Your task to perform on an android device: open chrome and create a bookmark for the current page Image 0: 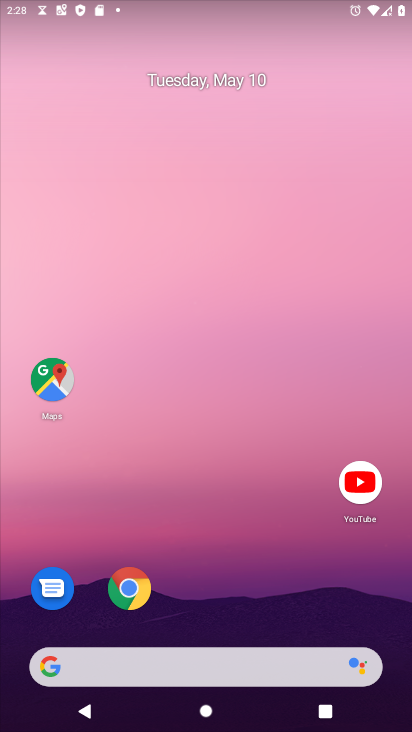
Step 0: drag from (256, 611) to (315, 226)
Your task to perform on an android device: open chrome and create a bookmark for the current page Image 1: 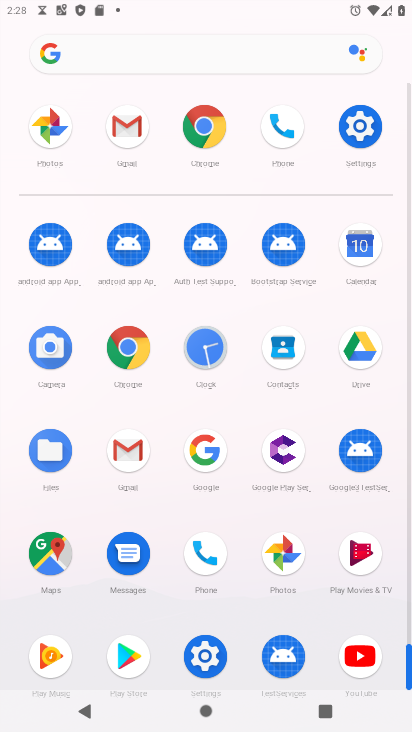
Step 1: click (133, 343)
Your task to perform on an android device: open chrome and create a bookmark for the current page Image 2: 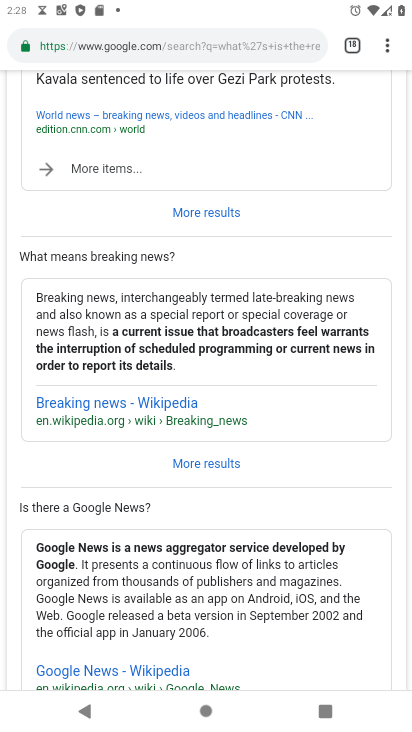
Step 2: click (373, 47)
Your task to perform on an android device: open chrome and create a bookmark for the current page Image 3: 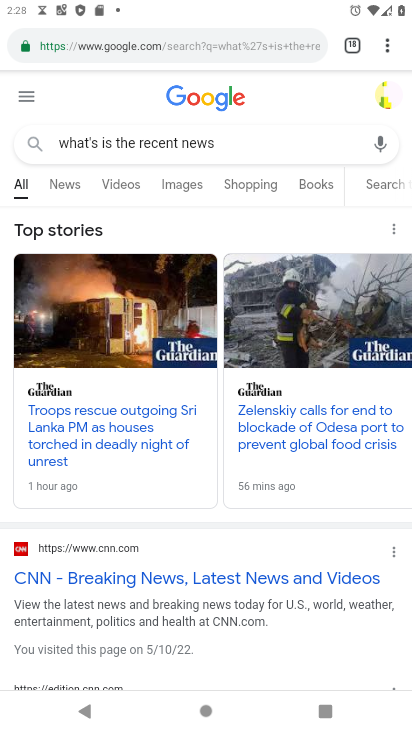
Step 3: click (375, 33)
Your task to perform on an android device: open chrome and create a bookmark for the current page Image 4: 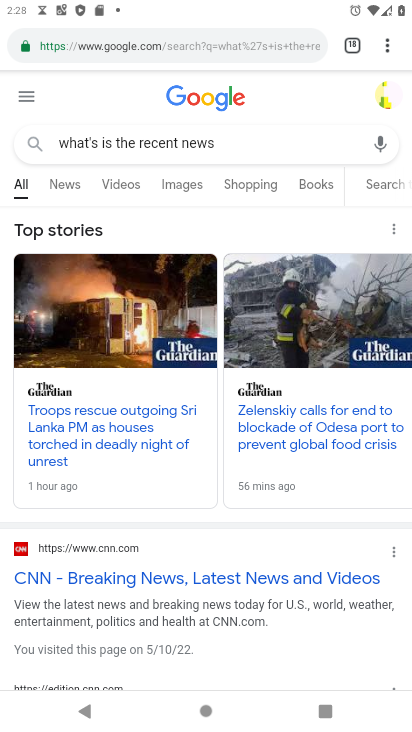
Step 4: click (374, 40)
Your task to perform on an android device: open chrome and create a bookmark for the current page Image 5: 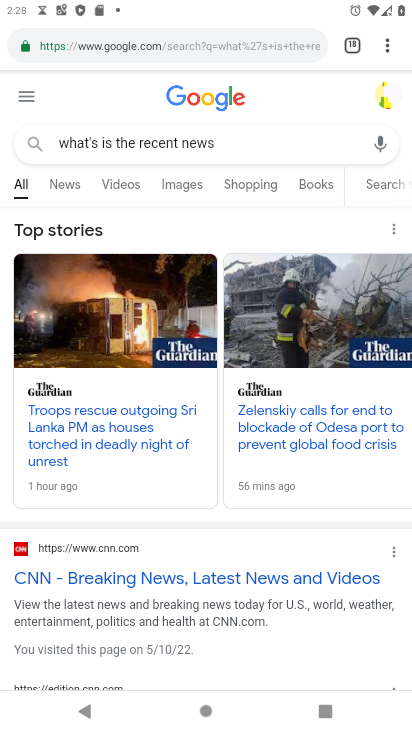
Step 5: click (366, 37)
Your task to perform on an android device: open chrome and create a bookmark for the current page Image 6: 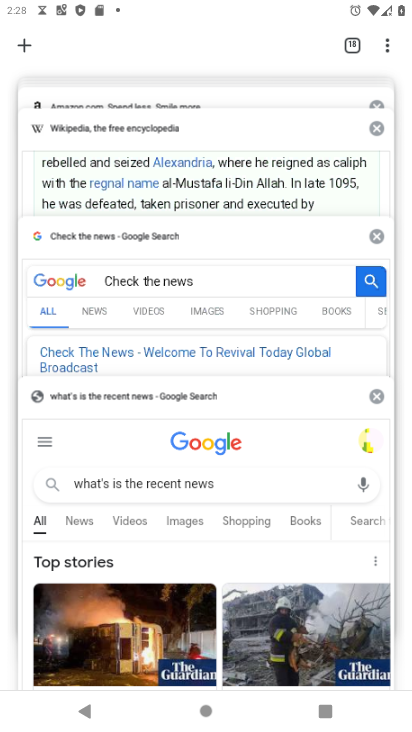
Step 6: click (116, 419)
Your task to perform on an android device: open chrome and create a bookmark for the current page Image 7: 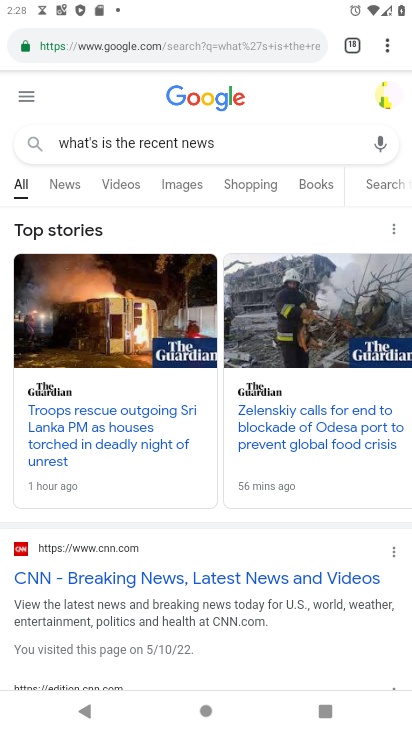
Step 7: click (375, 42)
Your task to perform on an android device: open chrome and create a bookmark for the current page Image 8: 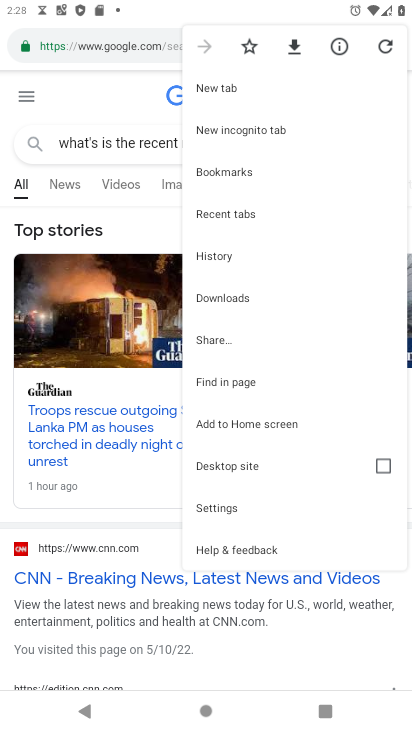
Step 8: click (248, 42)
Your task to perform on an android device: open chrome and create a bookmark for the current page Image 9: 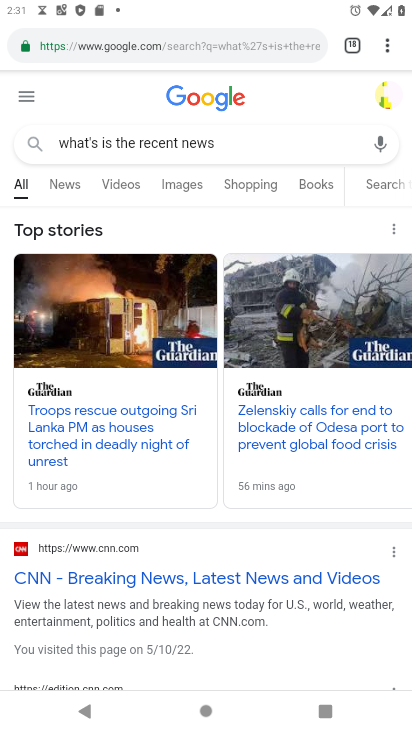
Step 9: task complete